Your task to perform on an android device: Open calendar and show me the second week of next month Image 0: 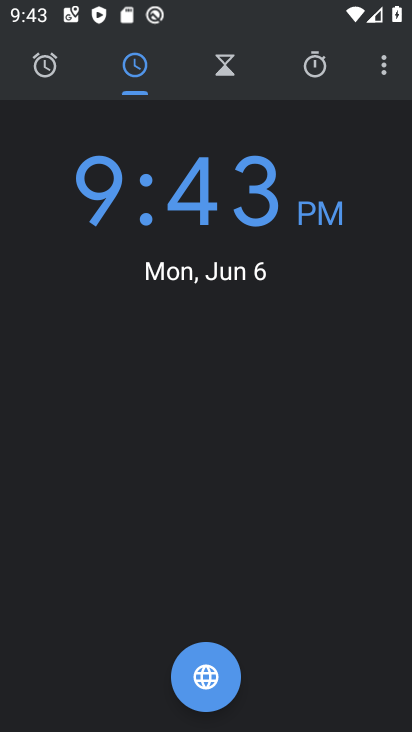
Step 0: press home button
Your task to perform on an android device: Open calendar and show me the second week of next month Image 1: 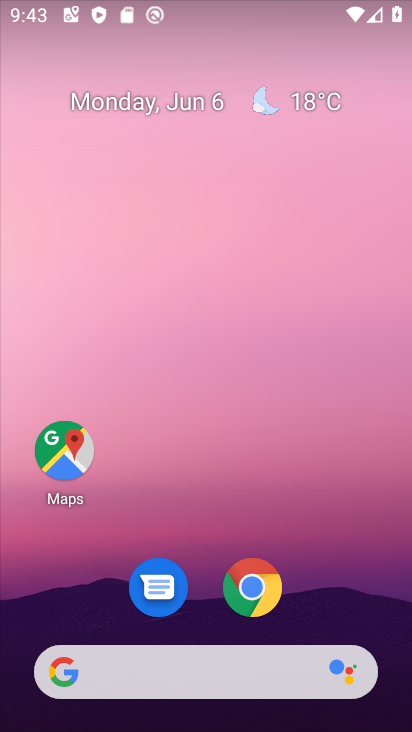
Step 1: drag from (374, 609) to (270, 131)
Your task to perform on an android device: Open calendar and show me the second week of next month Image 2: 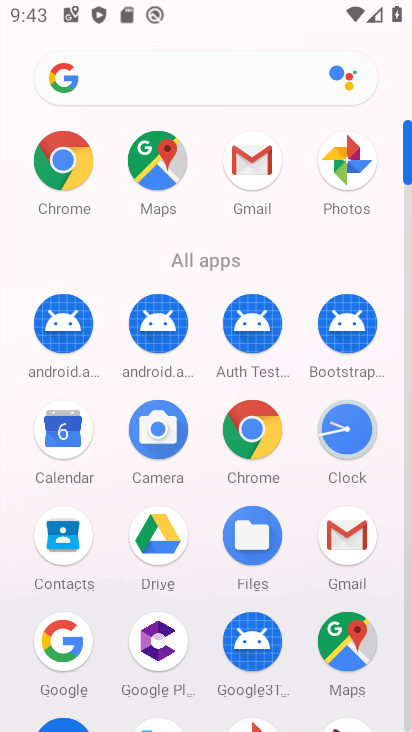
Step 2: click (57, 438)
Your task to perform on an android device: Open calendar and show me the second week of next month Image 3: 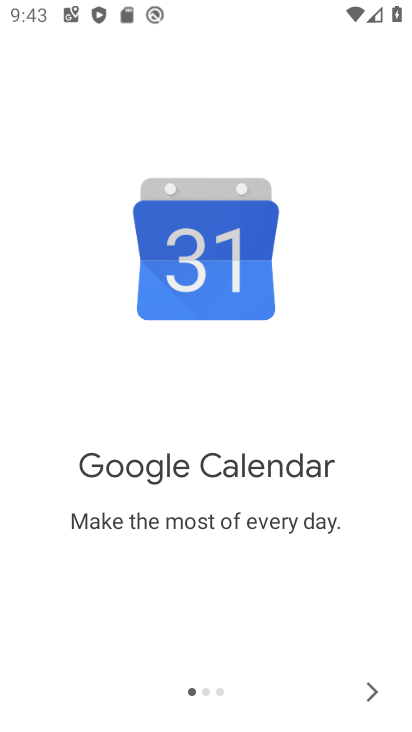
Step 3: click (380, 690)
Your task to perform on an android device: Open calendar and show me the second week of next month Image 4: 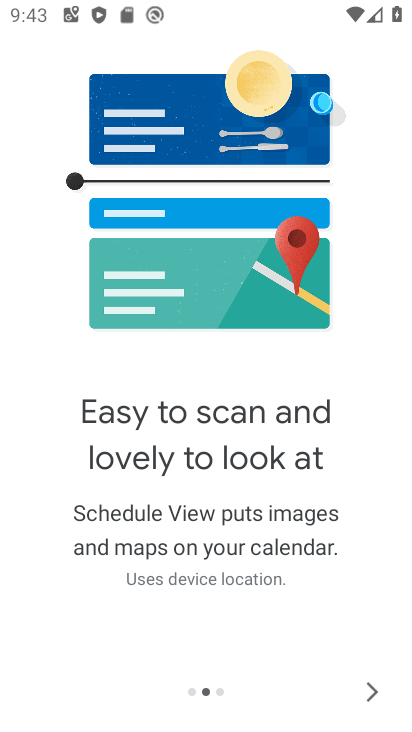
Step 4: click (380, 690)
Your task to perform on an android device: Open calendar and show me the second week of next month Image 5: 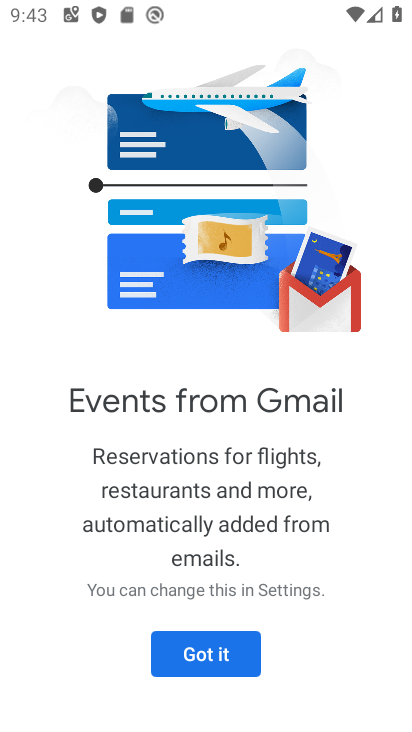
Step 5: click (207, 661)
Your task to perform on an android device: Open calendar and show me the second week of next month Image 6: 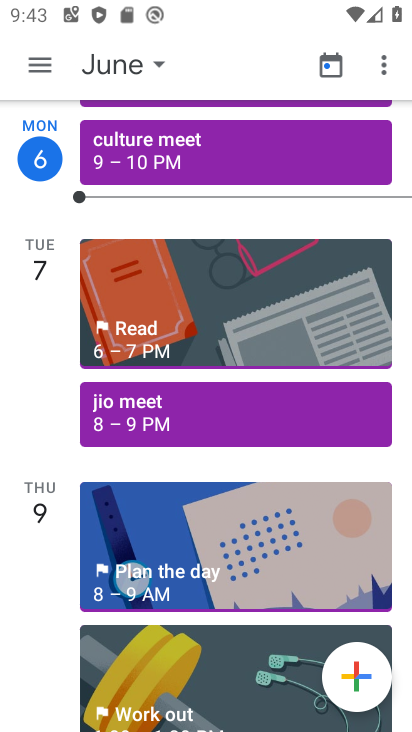
Step 6: click (40, 71)
Your task to perform on an android device: Open calendar and show me the second week of next month Image 7: 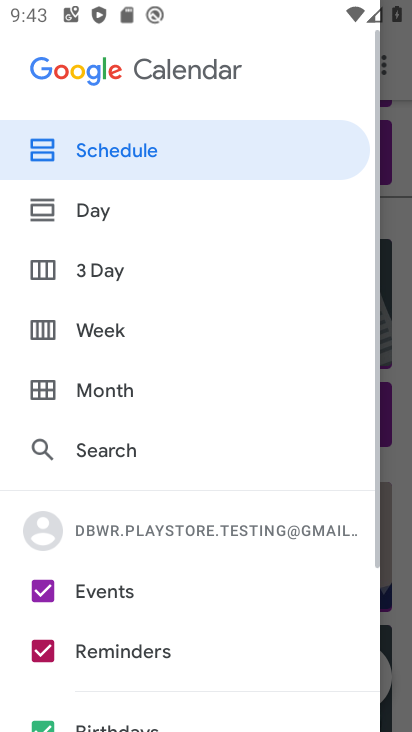
Step 7: click (146, 383)
Your task to perform on an android device: Open calendar and show me the second week of next month Image 8: 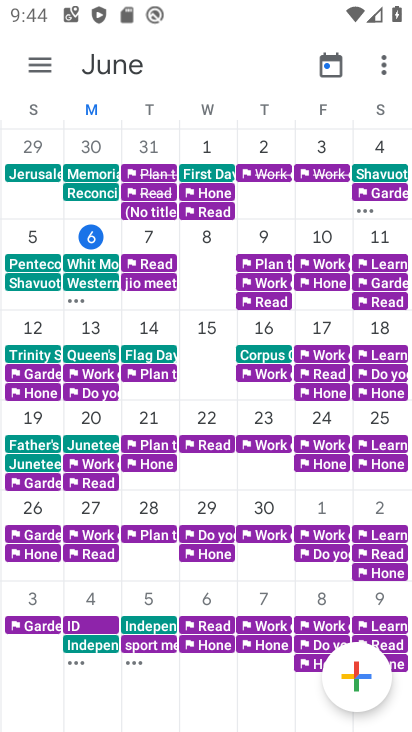
Step 8: click (14, 348)
Your task to perform on an android device: Open calendar and show me the second week of next month Image 9: 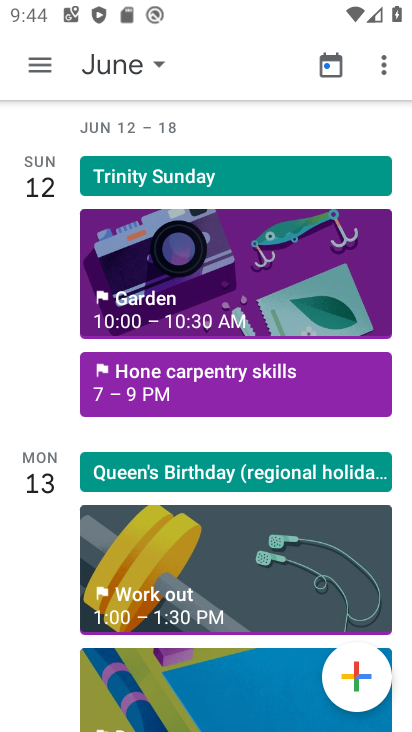
Step 9: task complete